Your task to perform on an android device: Go to Amazon Image 0: 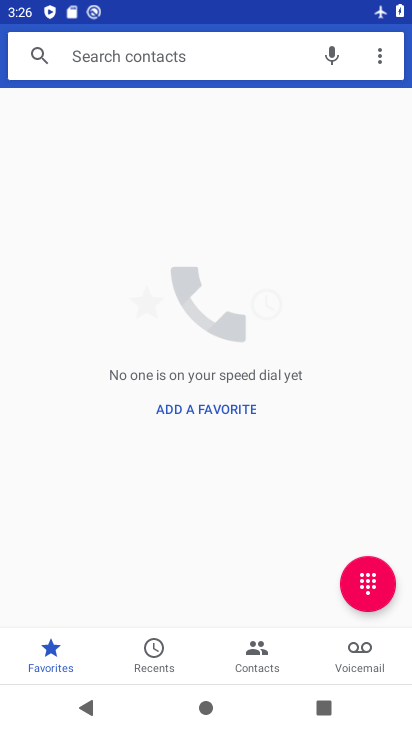
Step 0: press back button
Your task to perform on an android device: Go to Amazon Image 1: 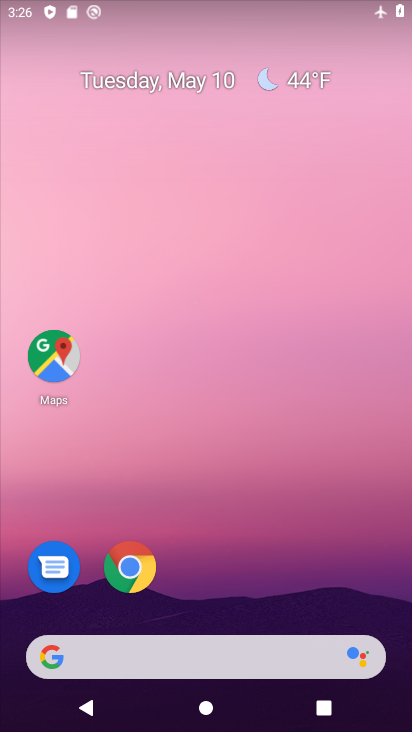
Step 1: click (125, 564)
Your task to perform on an android device: Go to Amazon Image 2: 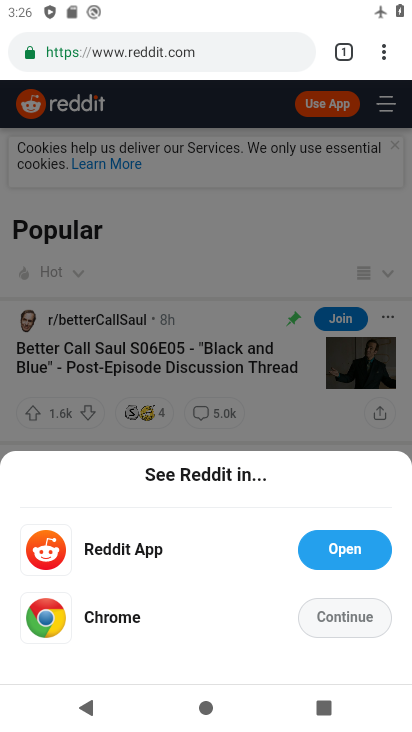
Step 2: click (386, 51)
Your task to perform on an android device: Go to Amazon Image 3: 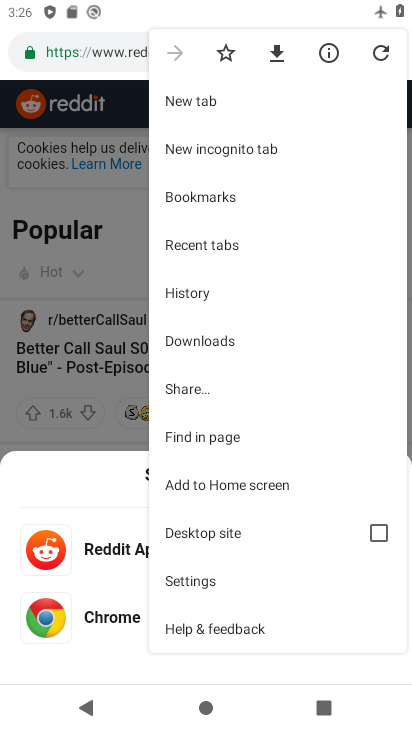
Step 3: click (191, 102)
Your task to perform on an android device: Go to Amazon Image 4: 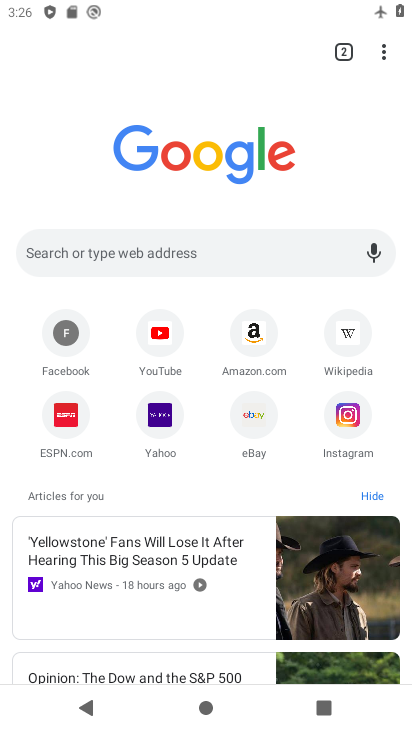
Step 4: click (251, 337)
Your task to perform on an android device: Go to Amazon Image 5: 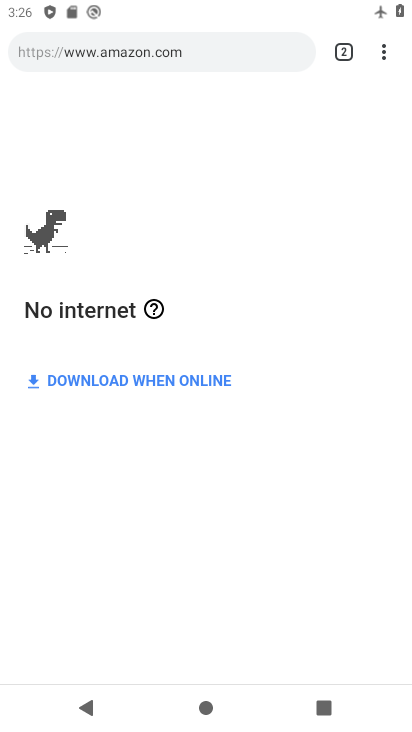
Step 5: task complete